Your task to perform on an android device: Go to Google maps Image 0: 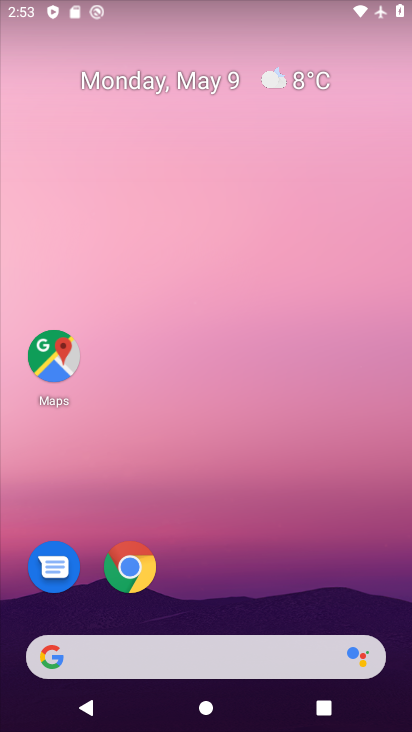
Step 0: drag from (299, 546) to (305, 0)
Your task to perform on an android device: Go to Google maps Image 1: 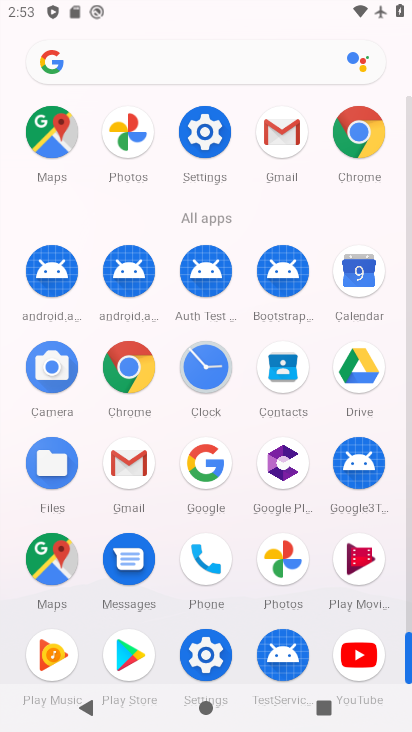
Step 1: click (50, 557)
Your task to perform on an android device: Go to Google maps Image 2: 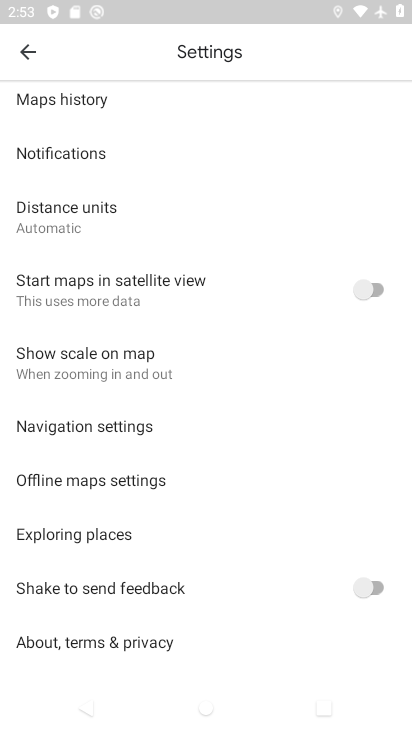
Step 2: click (33, 48)
Your task to perform on an android device: Go to Google maps Image 3: 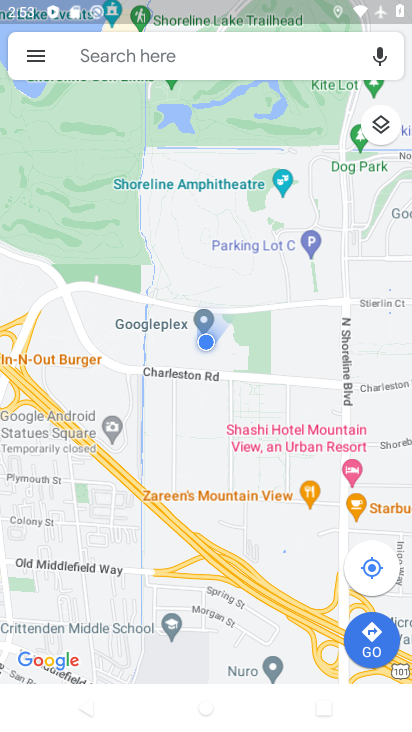
Step 3: task complete